Your task to perform on an android device: Clear the shopping cart on amazon. Search for "panasonic triple a" on amazon, select the first entry, add it to the cart, then select checkout. Image 0: 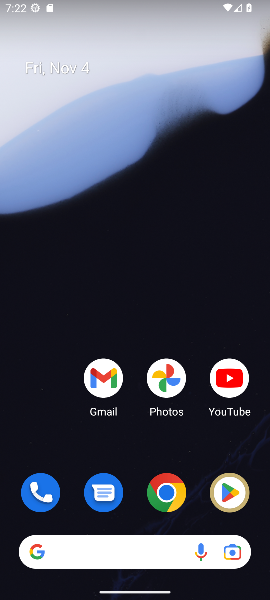
Step 0: drag from (128, 442) to (185, 42)
Your task to perform on an android device: Clear the shopping cart on amazon. Search for "panasonic triple a" on amazon, select the first entry, add it to the cart, then select checkout. Image 1: 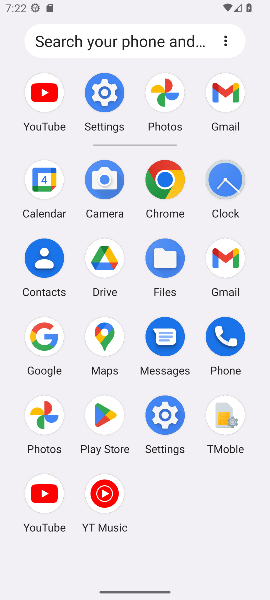
Step 1: click (168, 179)
Your task to perform on an android device: Clear the shopping cart on amazon. Search for "panasonic triple a" on amazon, select the first entry, add it to the cart, then select checkout. Image 2: 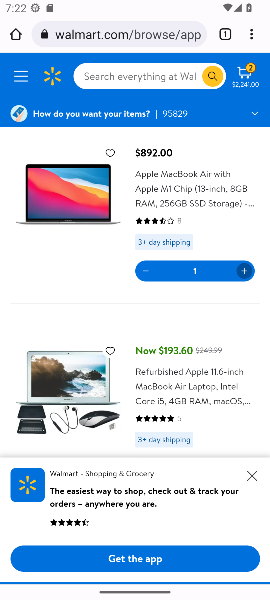
Step 2: click (150, 35)
Your task to perform on an android device: Clear the shopping cart on amazon. Search for "panasonic triple a" on amazon, select the first entry, add it to the cart, then select checkout. Image 3: 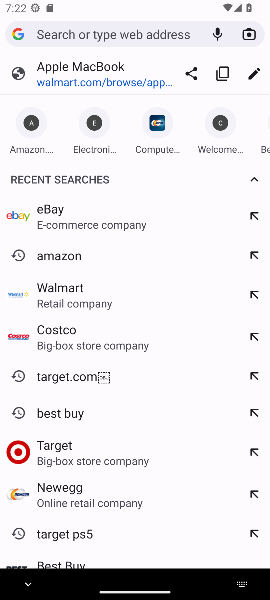
Step 3: type "amazon.com"
Your task to perform on an android device: Clear the shopping cart on amazon. Search for "panasonic triple a" on amazon, select the first entry, add it to the cart, then select checkout. Image 4: 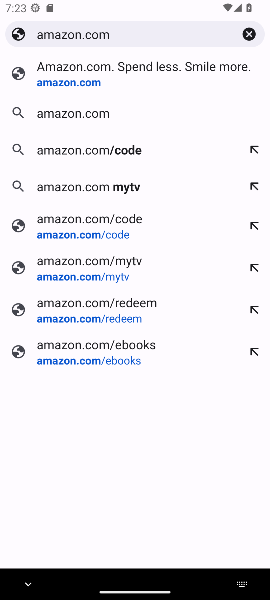
Step 4: press enter
Your task to perform on an android device: Clear the shopping cart on amazon. Search for "panasonic triple a" on amazon, select the first entry, add it to the cart, then select checkout. Image 5: 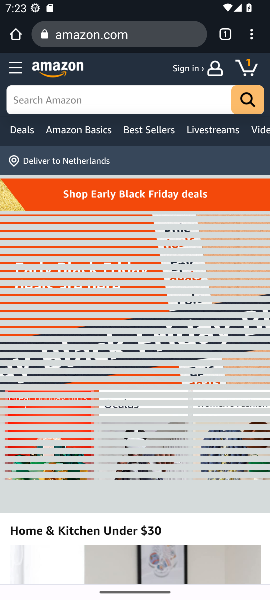
Step 5: click (247, 54)
Your task to perform on an android device: Clear the shopping cart on amazon. Search for "panasonic triple a" on amazon, select the first entry, add it to the cart, then select checkout. Image 6: 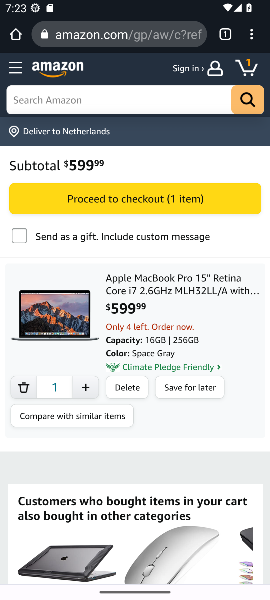
Step 6: click (26, 384)
Your task to perform on an android device: Clear the shopping cart on amazon. Search for "panasonic triple a" on amazon, select the first entry, add it to the cart, then select checkout. Image 7: 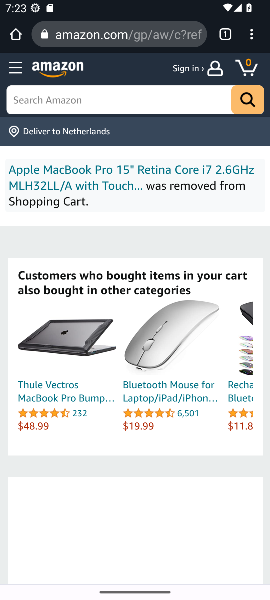
Step 7: click (197, 92)
Your task to perform on an android device: Clear the shopping cart on amazon. Search for "panasonic triple a" on amazon, select the first entry, add it to the cart, then select checkout. Image 8: 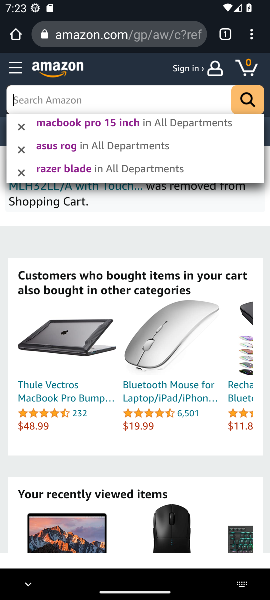
Step 8: type "panasonic triple a"
Your task to perform on an android device: Clear the shopping cart on amazon. Search for "panasonic triple a" on amazon, select the first entry, add it to the cart, then select checkout. Image 9: 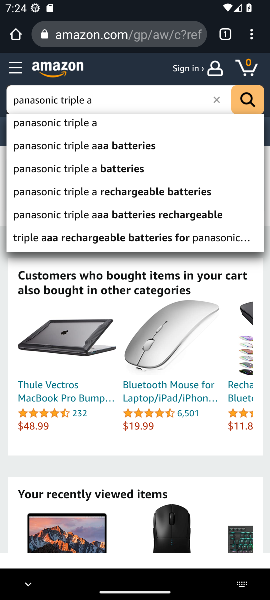
Step 9: press enter
Your task to perform on an android device: Clear the shopping cart on amazon. Search for "panasonic triple a" on amazon, select the first entry, add it to the cart, then select checkout. Image 10: 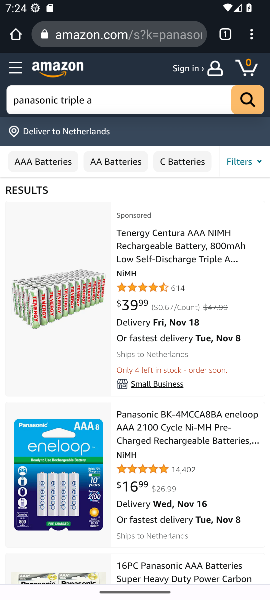
Step 10: click (181, 427)
Your task to perform on an android device: Clear the shopping cart on amazon. Search for "panasonic triple a" on amazon, select the first entry, add it to the cart, then select checkout. Image 11: 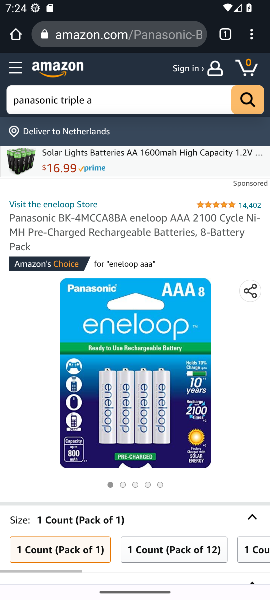
Step 11: task complete